Your task to perform on an android device: Go to Amazon Image 0: 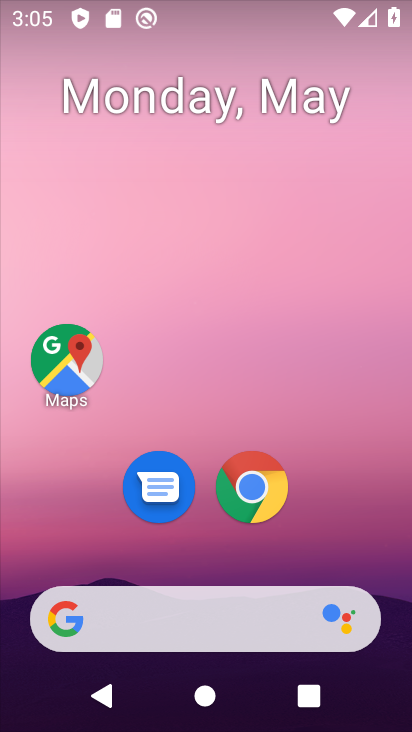
Step 0: click (249, 492)
Your task to perform on an android device: Go to Amazon Image 1: 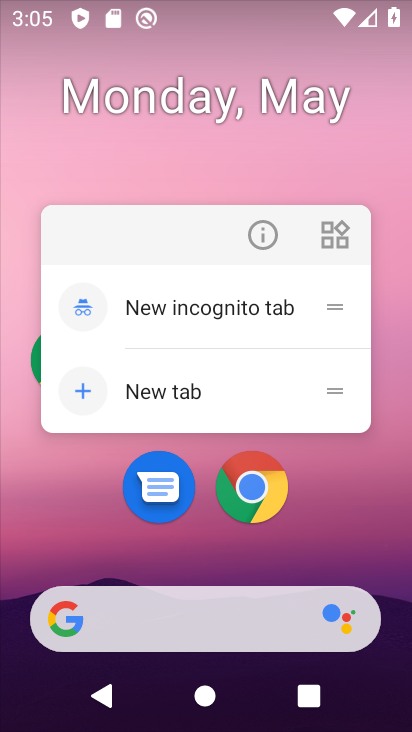
Step 1: click (249, 492)
Your task to perform on an android device: Go to Amazon Image 2: 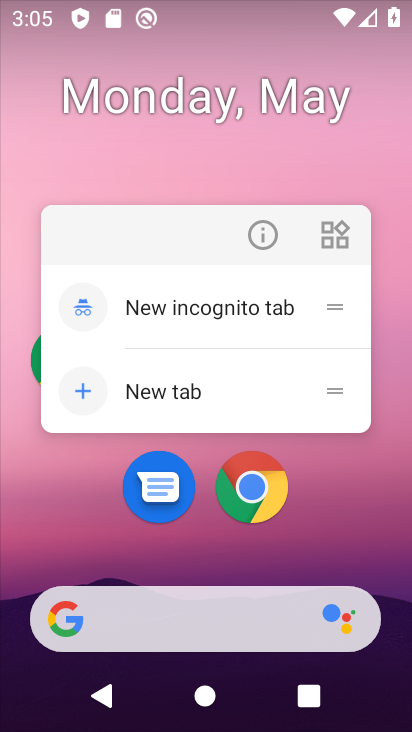
Step 2: click (249, 492)
Your task to perform on an android device: Go to Amazon Image 3: 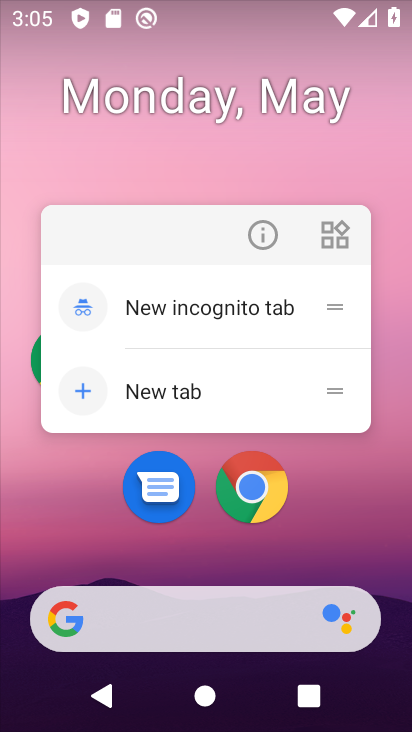
Step 3: click (255, 497)
Your task to perform on an android device: Go to Amazon Image 4: 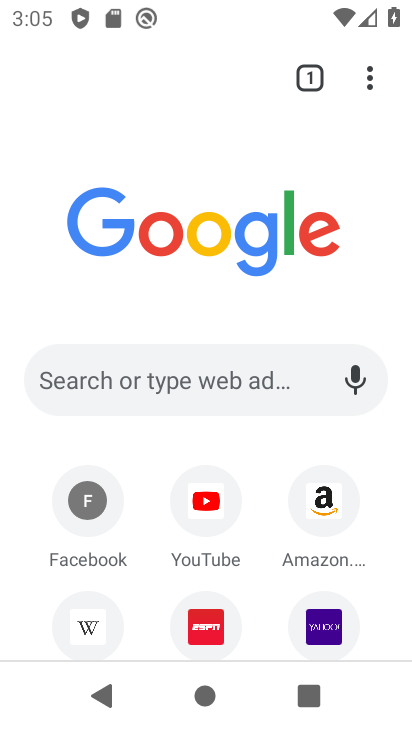
Step 4: click (320, 497)
Your task to perform on an android device: Go to Amazon Image 5: 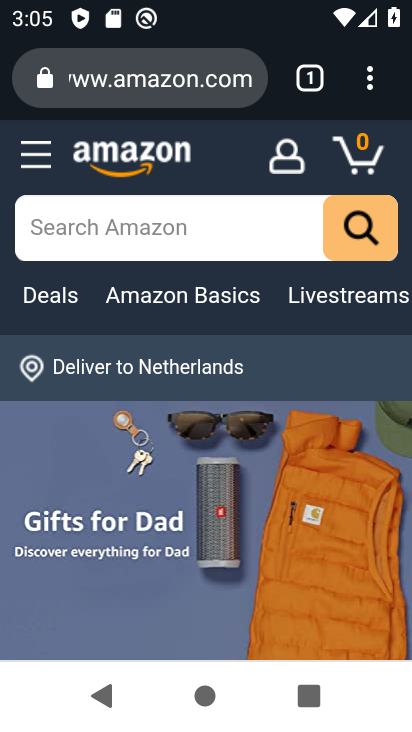
Step 5: task complete